Your task to perform on an android device: open chrome and create a bookmark for the current page Image 0: 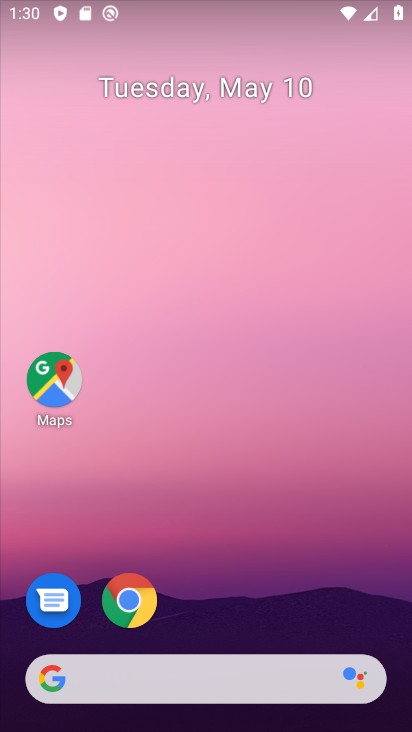
Step 0: drag from (255, 660) to (214, 237)
Your task to perform on an android device: open chrome and create a bookmark for the current page Image 1: 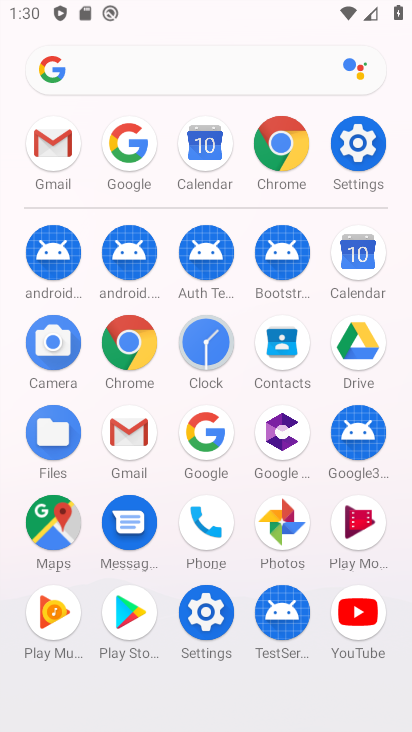
Step 1: click (274, 150)
Your task to perform on an android device: open chrome and create a bookmark for the current page Image 2: 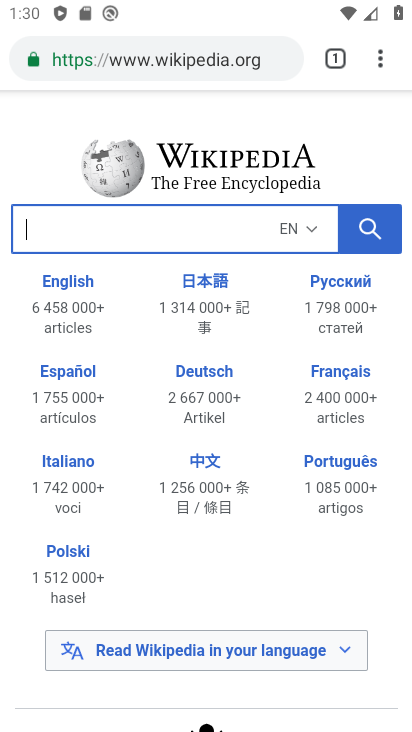
Step 2: click (348, 60)
Your task to perform on an android device: open chrome and create a bookmark for the current page Image 3: 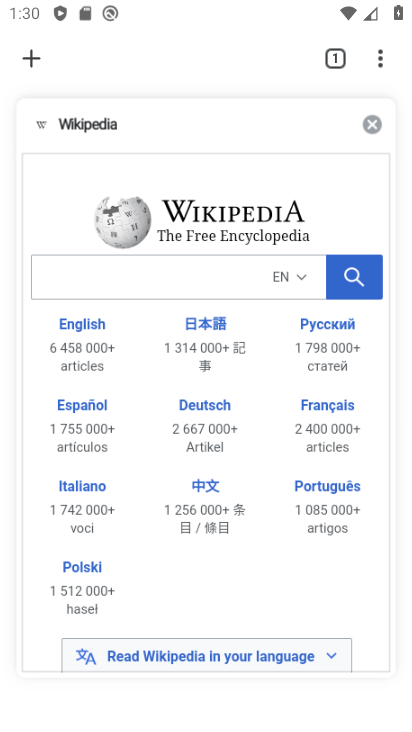
Step 3: click (336, 192)
Your task to perform on an android device: open chrome and create a bookmark for the current page Image 4: 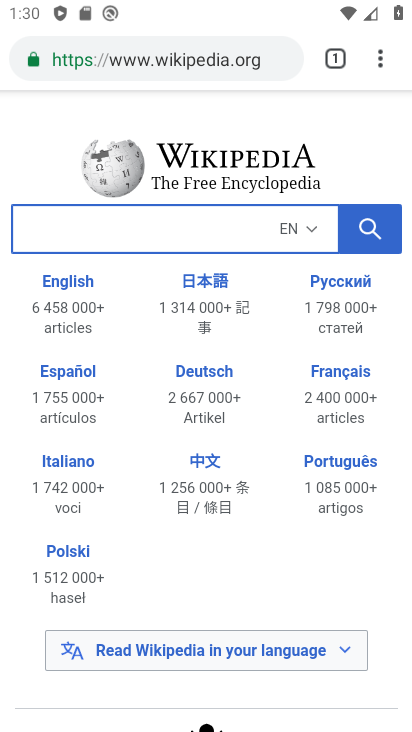
Step 4: click (384, 63)
Your task to perform on an android device: open chrome and create a bookmark for the current page Image 5: 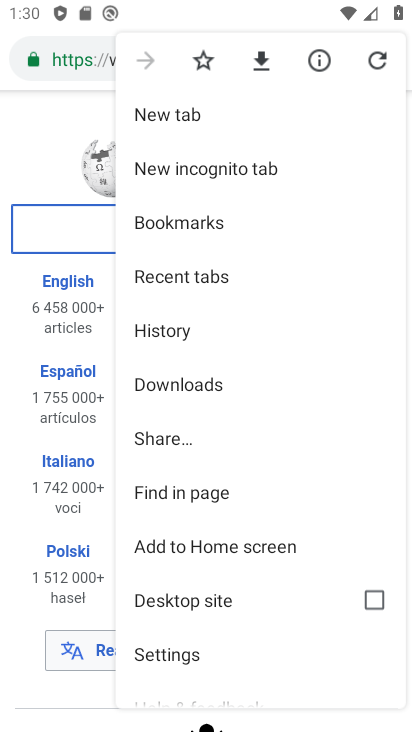
Step 5: click (206, 67)
Your task to perform on an android device: open chrome and create a bookmark for the current page Image 6: 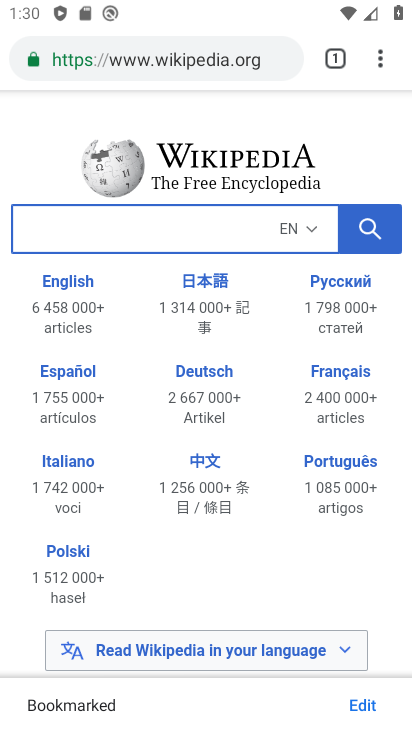
Step 6: task complete